Your task to perform on an android device: open app "Skype" (install if not already installed), go to login, and select forgot password Image 0: 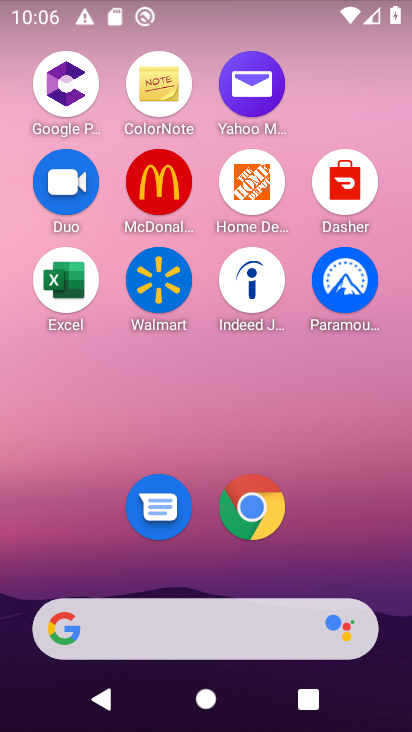
Step 0: drag from (401, 659) to (279, 130)
Your task to perform on an android device: open app "Skype" (install if not already installed), go to login, and select forgot password Image 1: 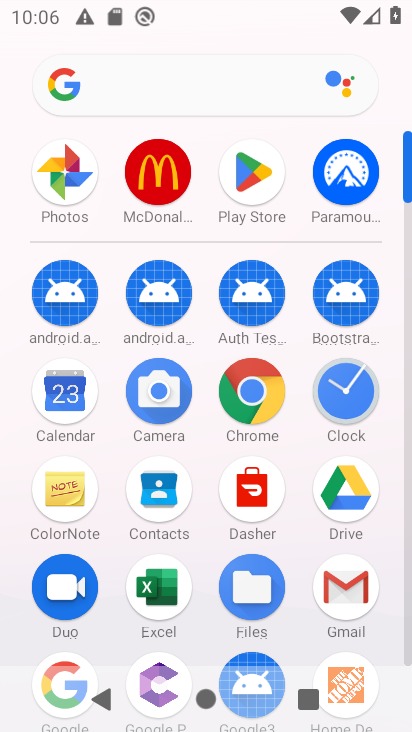
Step 1: click (408, 649)
Your task to perform on an android device: open app "Skype" (install if not already installed), go to login, and select forgot password Image 2: 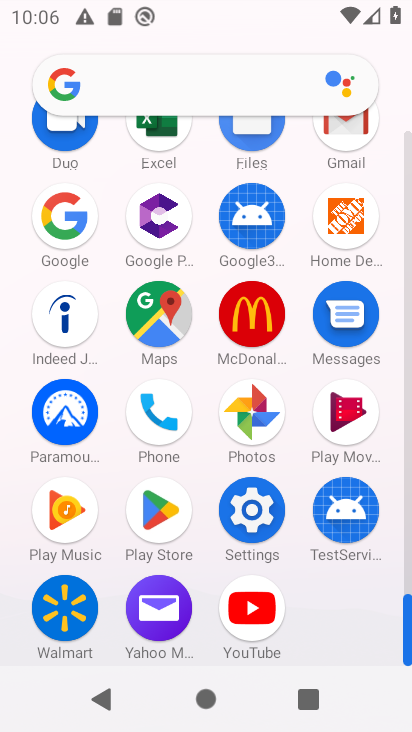
Step 2: click (158, 509)
Your task to perform on an android device: open app "Skype" (install if not already installed), go to login, and select forgot password Image 3: 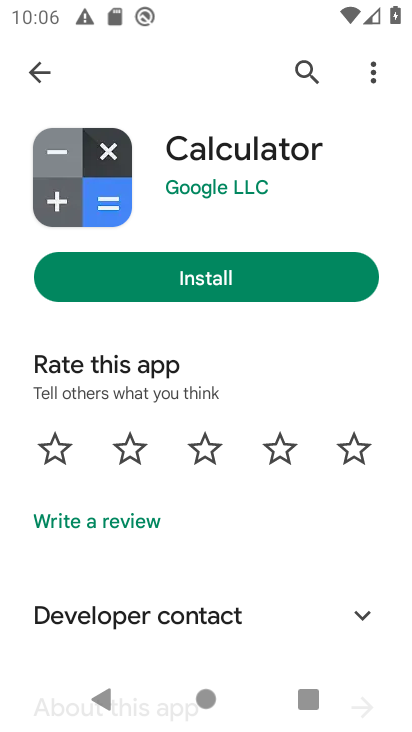
Step 3: click (305, 73)
Your task to perform on an android device: open app "Skype" (install if not already installed), go to login, and select forgot password Image 4: 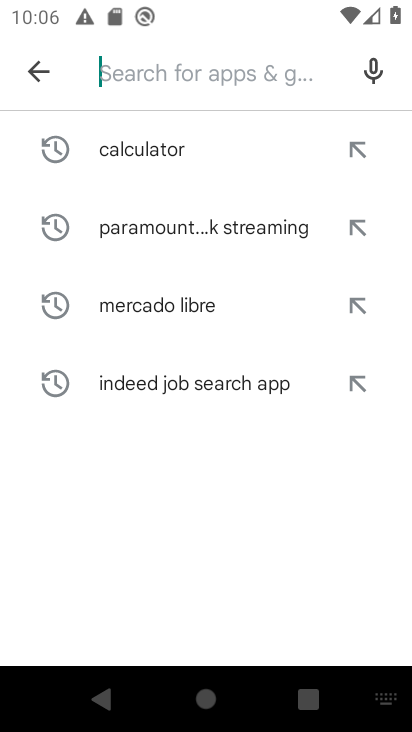
Step 4: type "Skype"
Your task to perform on an android device: open app "Skype" (install if not already installed), go to login, and select forgot password Image 5: 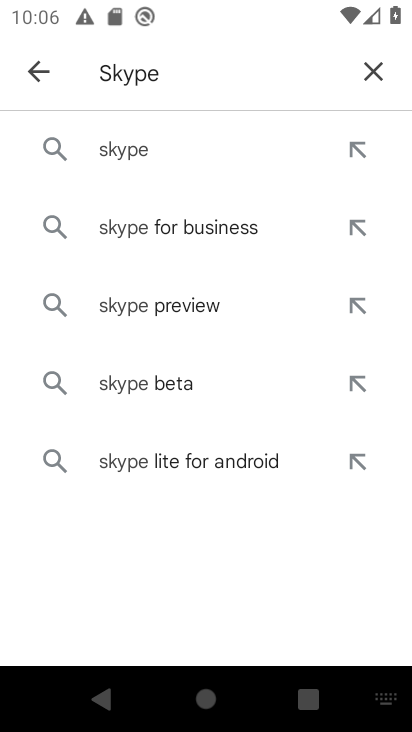
Step 5: click (135, 154)
Your task to perform on an android device: open app "Skype" (install if not already installed), go to login, and select forgot password Image 6: 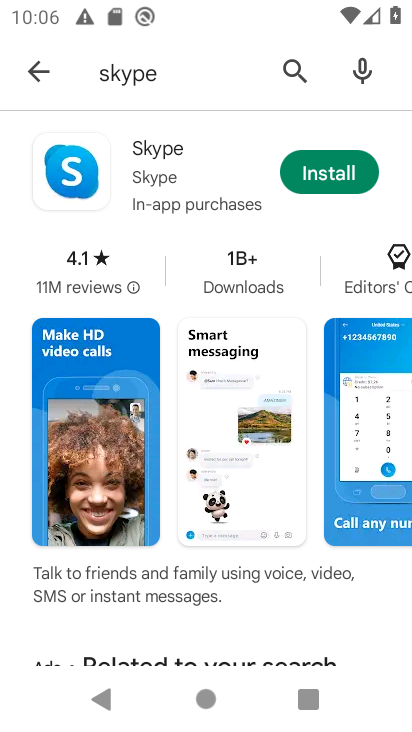
Step 6: click (331, 169)
Your task to perform on an android device: open app "Skype" (install if not already installed), go to login, and select forgot password Image 7: 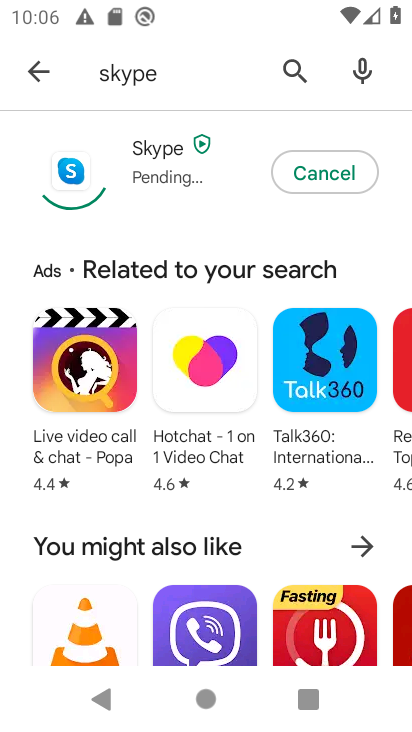
Step 7: click (166, 158)
Your task to perform on an android device: open app "Skype" (install if not already installed), go to login, and select forgot password Image 8: 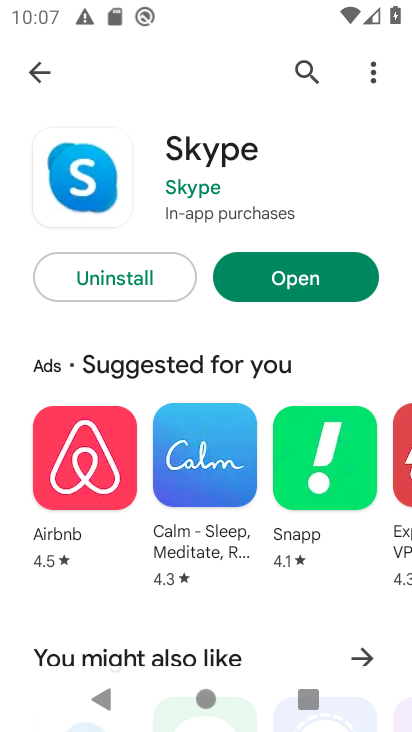
Step 8: click (299, 281)
Your task to perform on an android device: open app "Skype" (install if not already installed), go to login, and select forgot password Image 9: 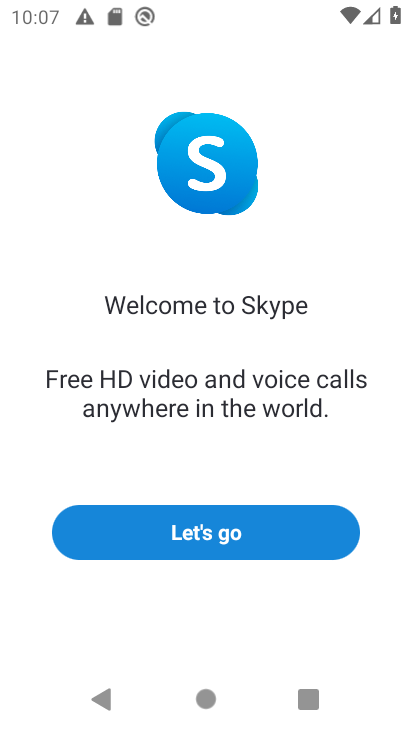
Step 9: click (205, 530)
Your task to perform on an android device: open app "Skype" (install if not already installed), go to login, and select forgot password Image 10: 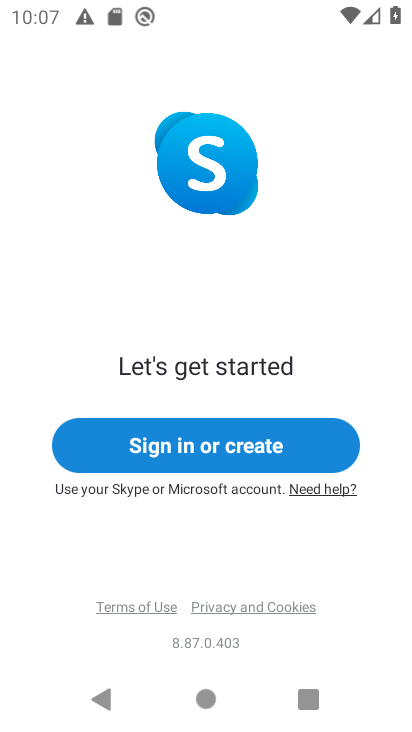
Step 10: click (175, 435)
Your task to perform on an android device: open app "Skype" (install if not already installed), go to login, and select forgot password Image 11: 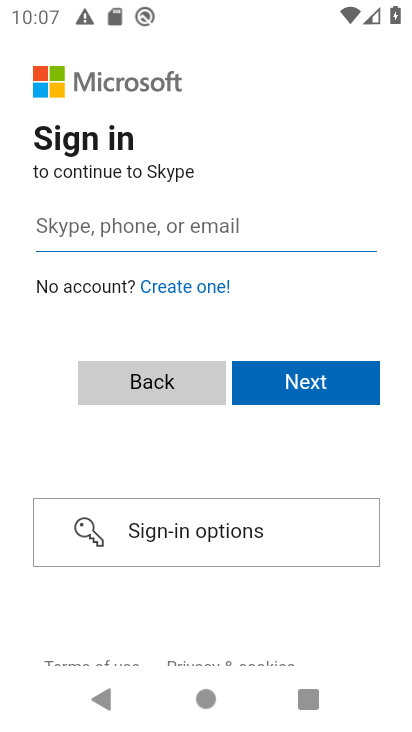
Step 11: task complete